Your task to perform on an android device: turn on javascript in the chrome app Image 0: 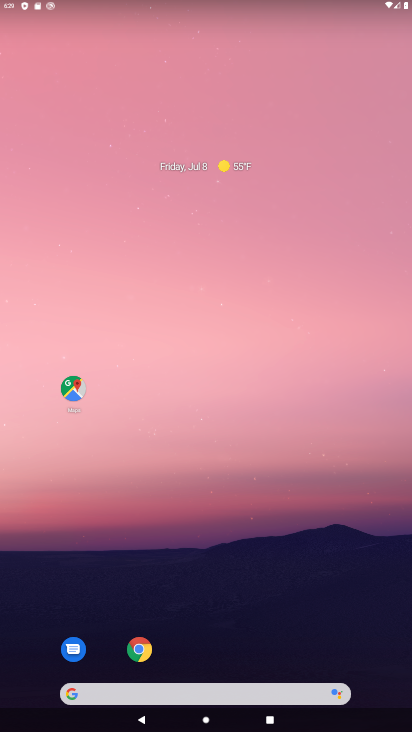
Step 0: drag from (176, 693) to (278, 16)
Your task to perform on an android device: turn on javascript in the chrome app Image 1: 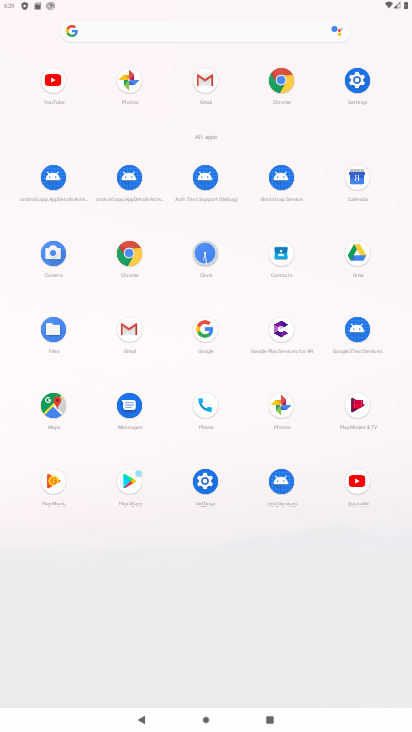
Step 1: click (125, 260)
Your task to perform on an android device: turn on javascript in the chrome app Image 2: 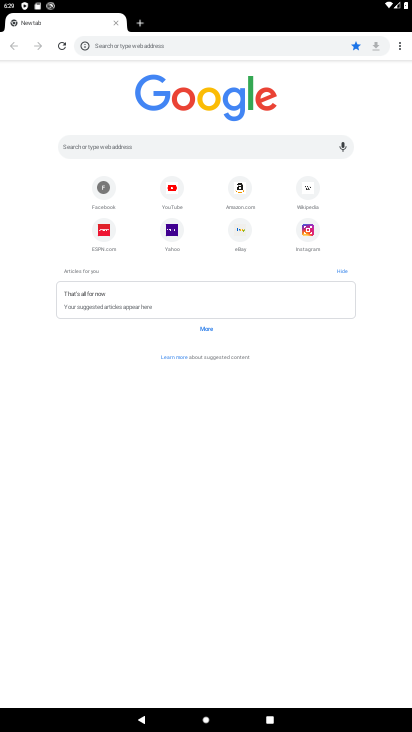
Step 2: drag from (397, 42) to (321, 217)
Your task to perform on an android device: turn on javascript in the chrome app Image 3: 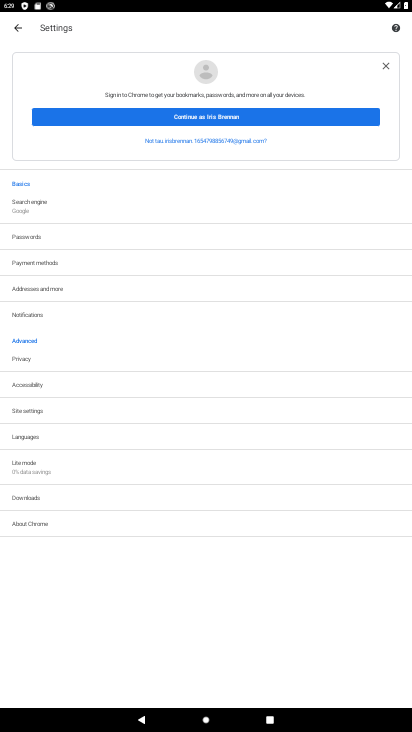
Step 3: click (27, 411)
Your task to perform on an android device: turn on javascript in the chrome app Image 4: 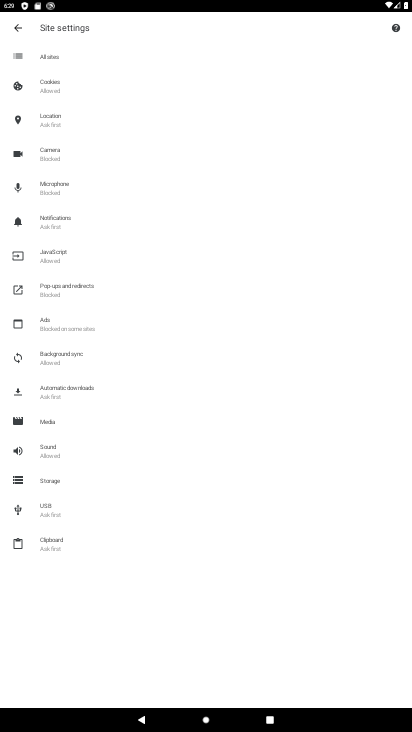
Step 4: click (56, 255)
Your task to perform on an android device: turn on javascript in the chrome app Image 5: 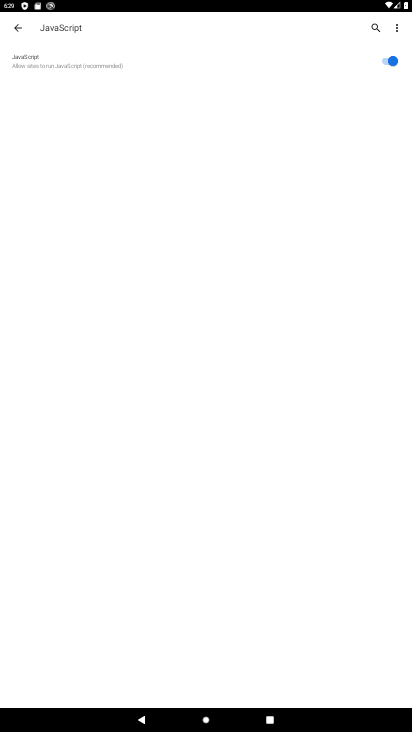
Step 5: task complete